Your task to perform on an android device: Add dell xps to the cart on amazon.com Image 0: 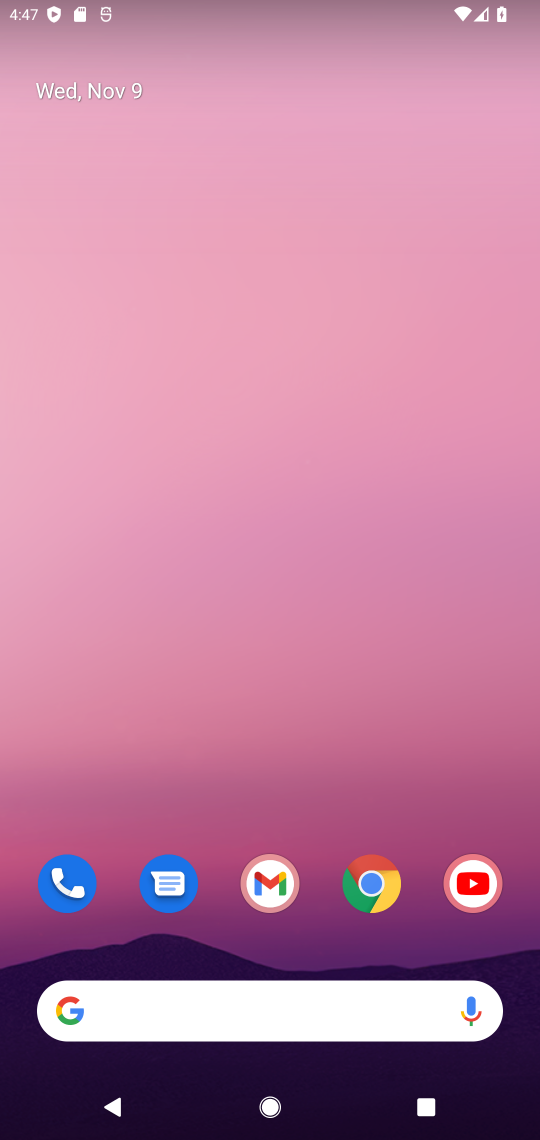
Step 0: click (383, 873)
Your task to perform on an android device: Add dell xps to the cart on amazon.com Image 1: 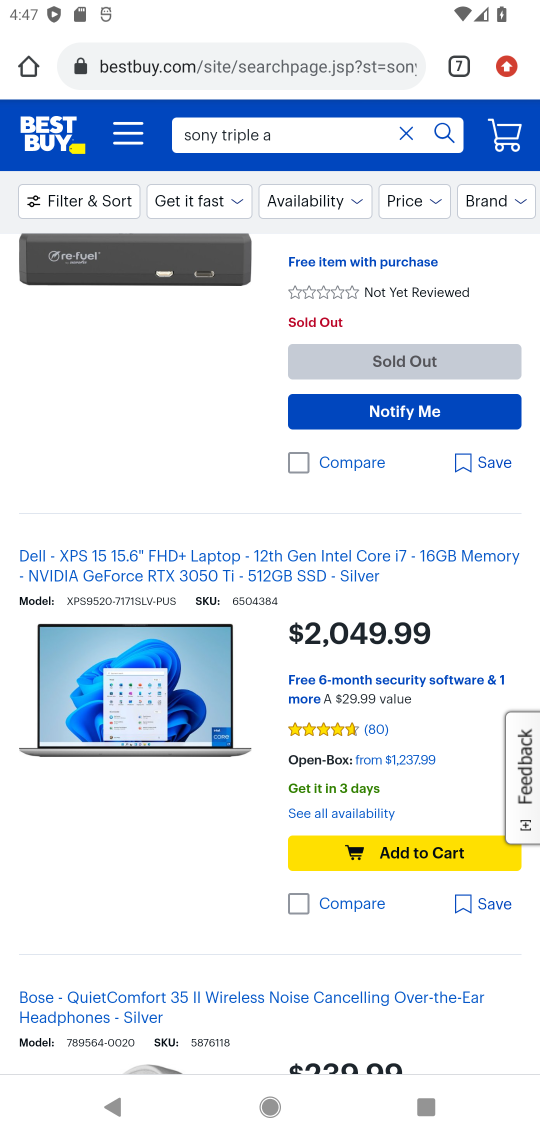
Step 1: click (455, 68)
Your task to perform on an android device: Add dell xps to the cart on amazon.com Image 2: 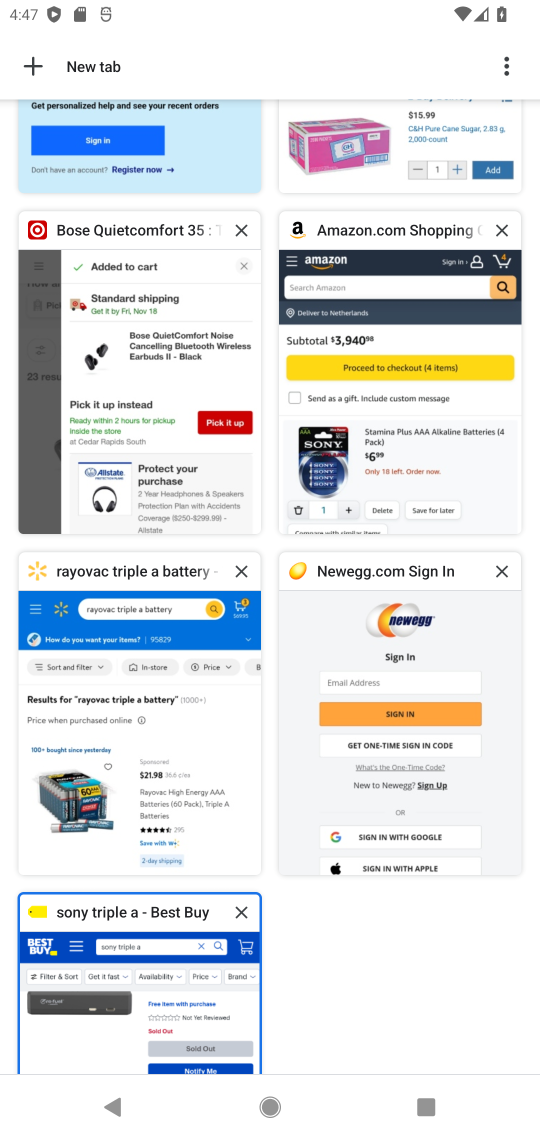
Step 2: click (384, 360)
Your task to perform on an android device: Add dell xps to the cart on amazon.com Image 3: 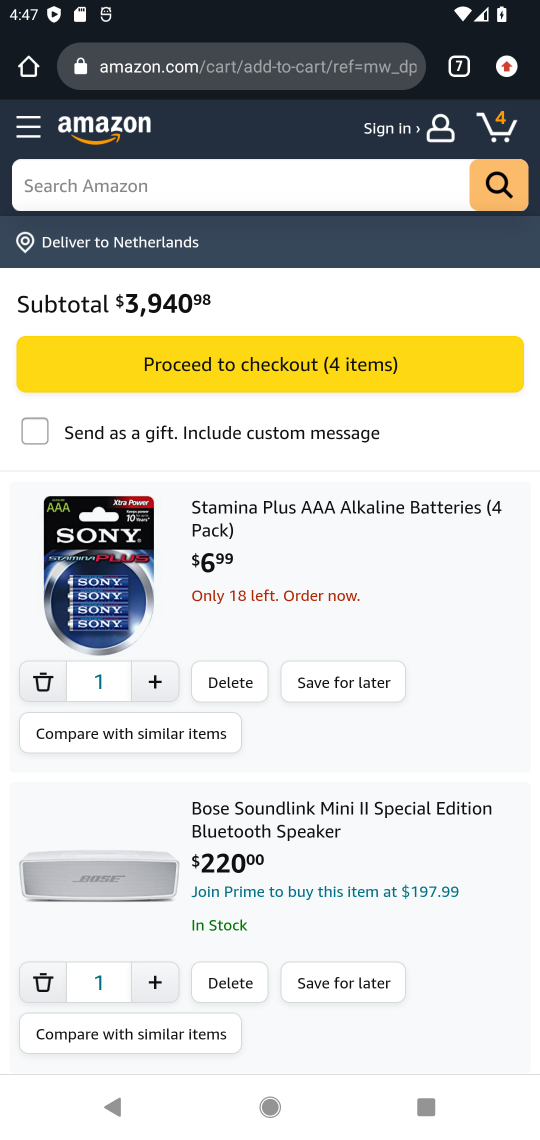
Step 3: click (108, 182)
Your task to perform on an android device: Add dell xps to the cart on amazon.com Image 4: 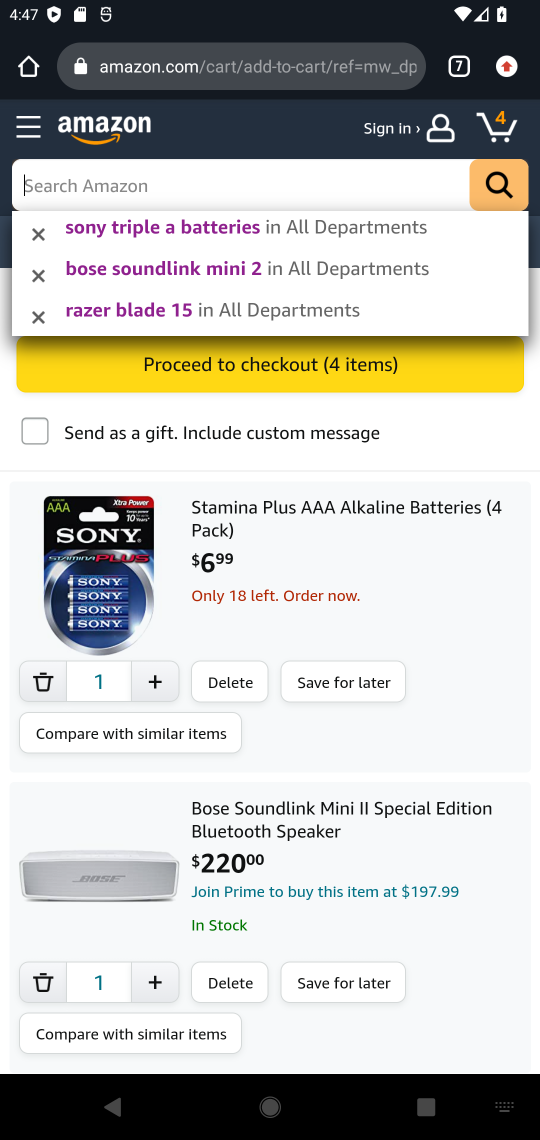
Step 4: type "dell xps"
Your task to perform on an android device: Add dell xps to the cart on amazon.com Image 5: 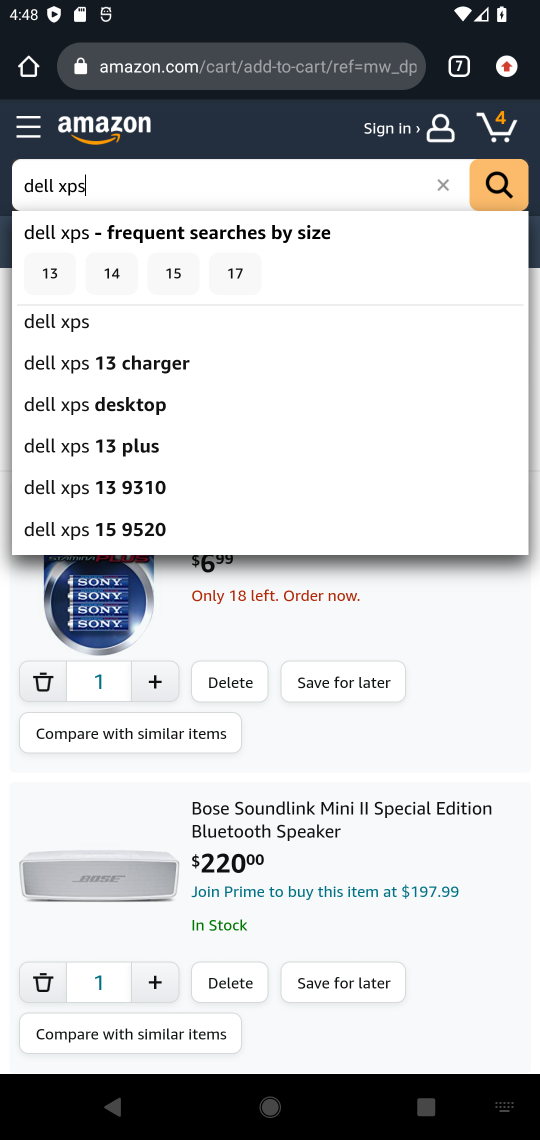
Step 5: click (58, 318)
Your task to perform on an android device: Add dell xps to the cart on amazon.com Image 6: 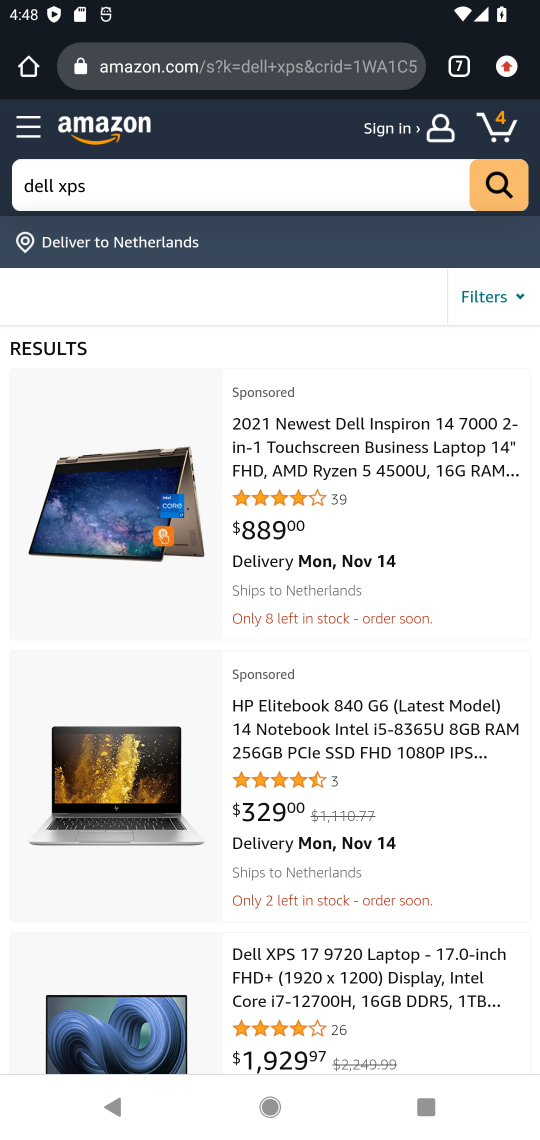
Step 6: click (329, 979)
Your task to perform on an android device: Add dell xps to the cart on amazon.com Image 7: 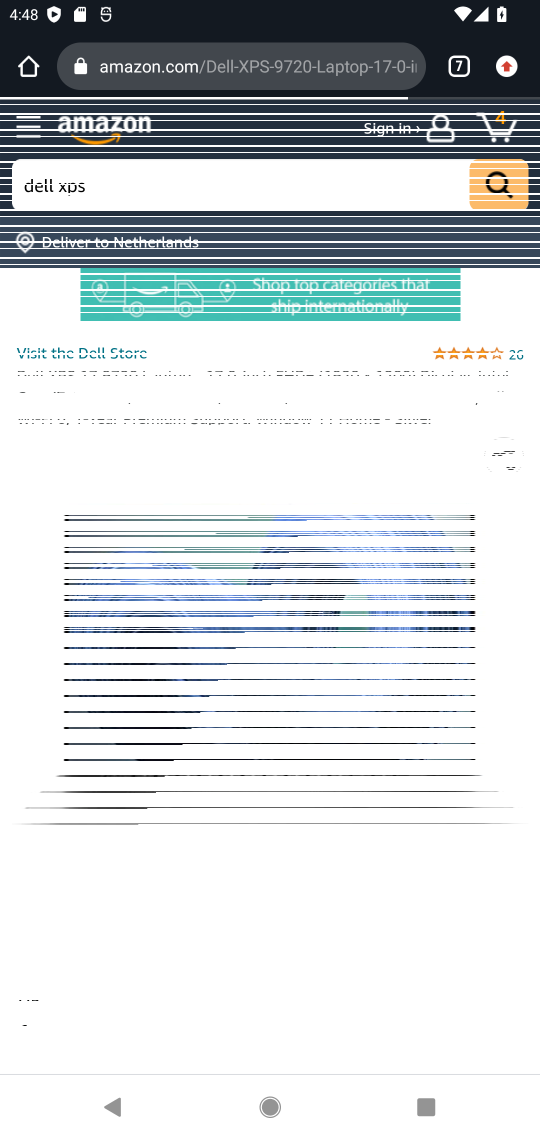
Step 7: drag from (329, 979) to (394, 464)
Your task to perform on an android device: Add dell xps to the cart on amazon.com Image 8: 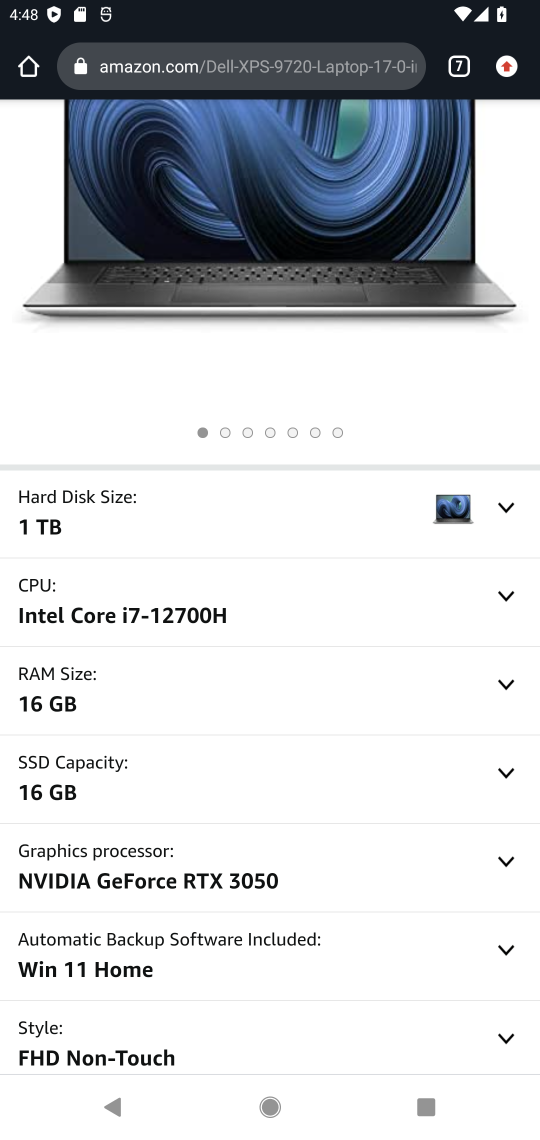
Step 8: drag from (355, 622) to (411, 385)
Your task to perform on an android device: Add dell xps to the cart on amazon.com Image 9: 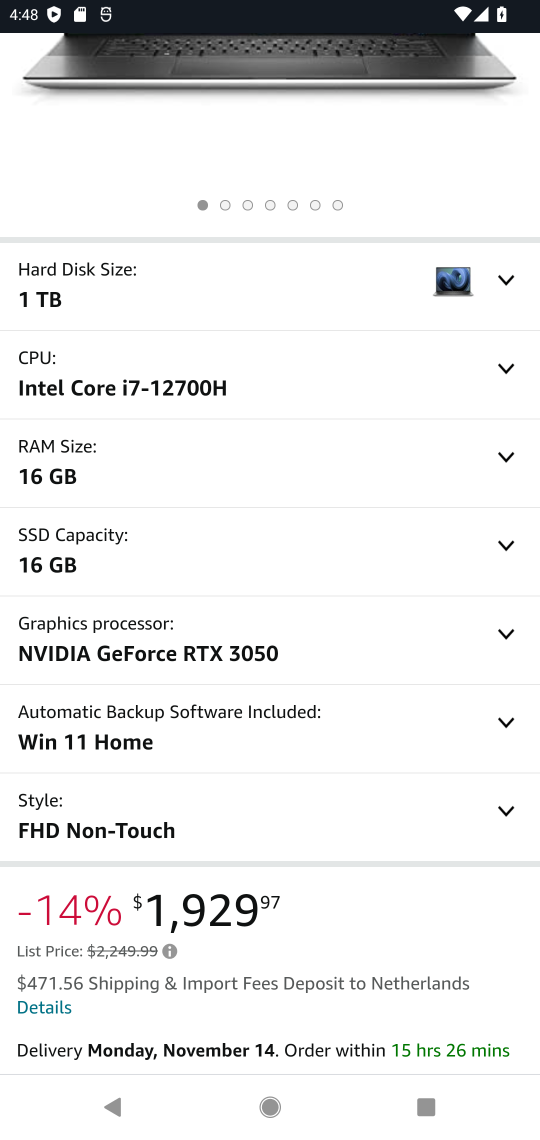
Step 9: drag from (339, 886) to (524, 48)
Your task to perform on an android device: Add dell xps to the cart on amazon.com Image 10: 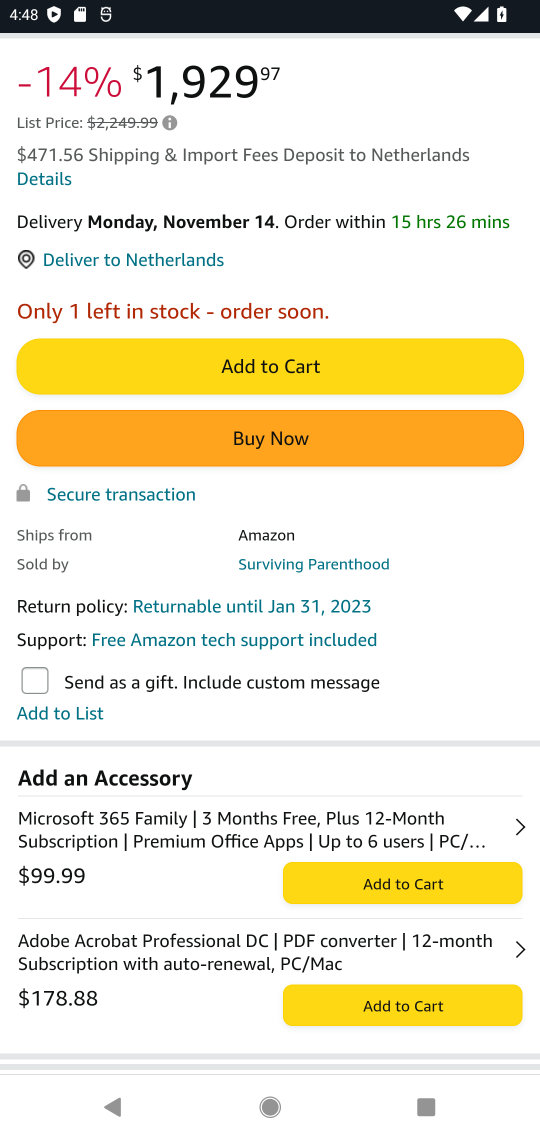
Step 10: click (325, 371)
Your task to perform on an android device: Add dell xps to the cart on amazon.com Image 11: 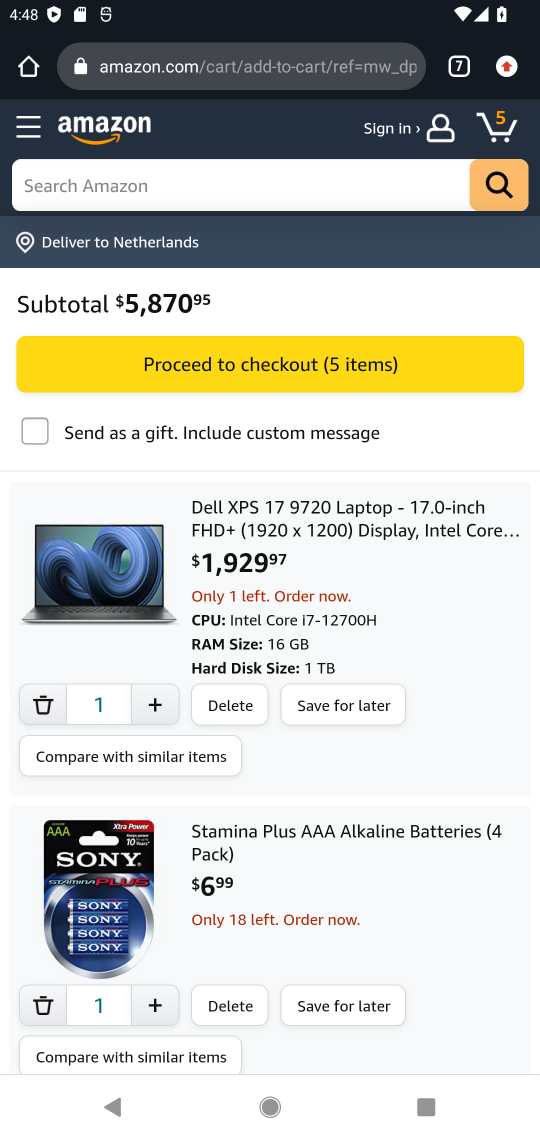
Step 11: task complete